Your task to perform on an android device: refresh tabs in the chrome app Image 0: 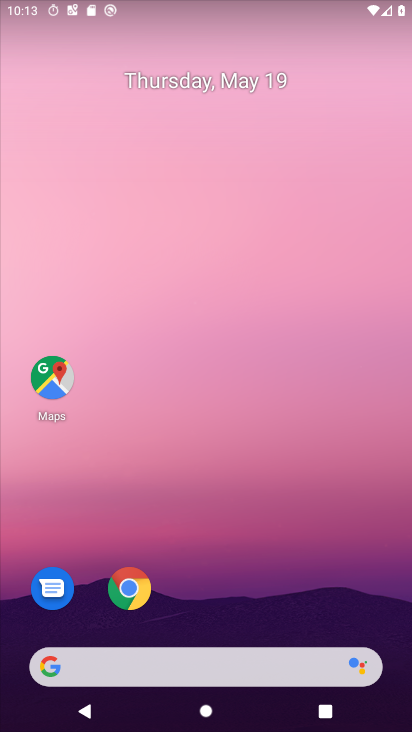
Step 0: press home button
Your task to perform on an android device: refresh tabs in the chrome app Image 1: 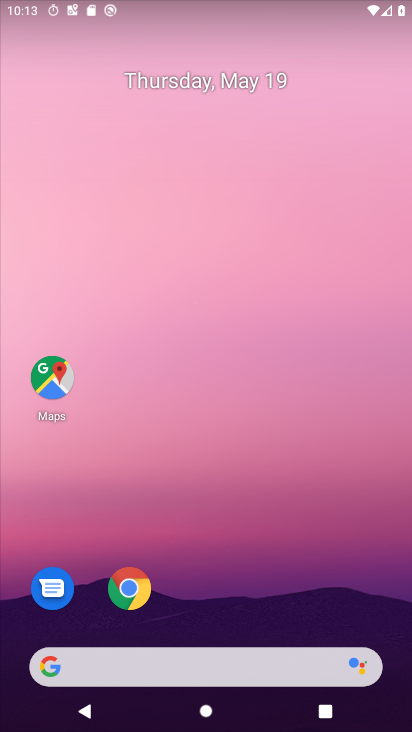
Step 1: click (135, 592)
Your task to perform on an android device: refresh tabs in the chrome app Image 2: 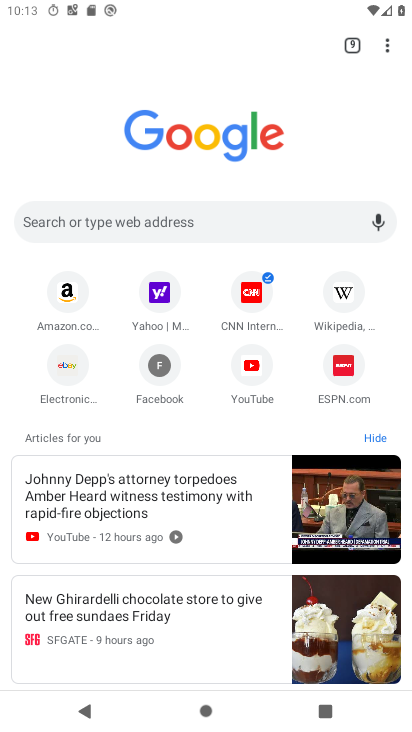
Step 2: click (381, 58)
Your task to perform on an android device: refresh tabs in the chrome app Image 3: 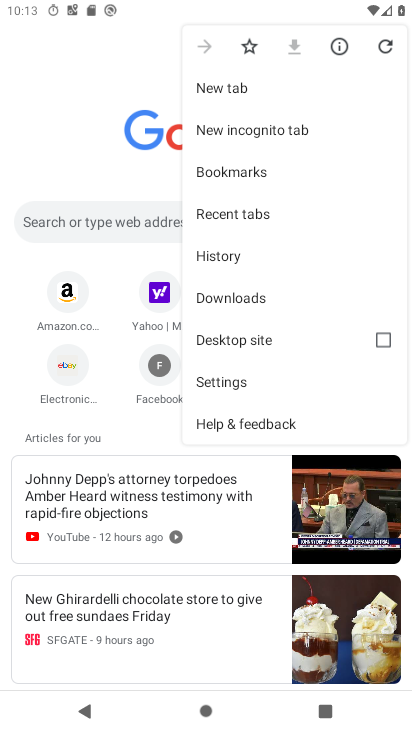
Step 3: click (380, 52)
Your task to perform on an android device: refresh tabs in the chrome app Image 4: 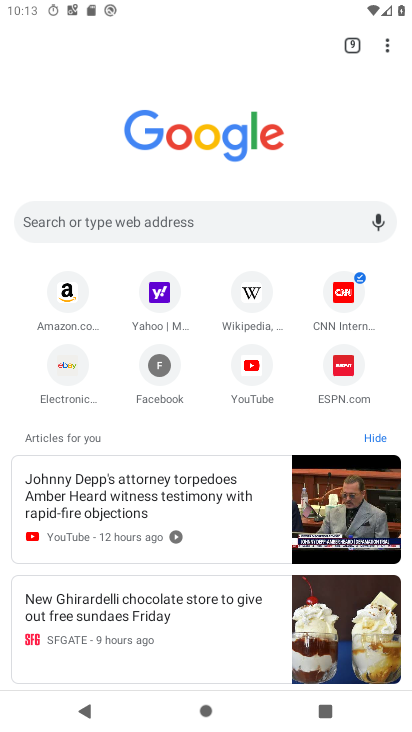
Step 4: task complete